Your task to perform on an android device: toggle notification dots Image 0: 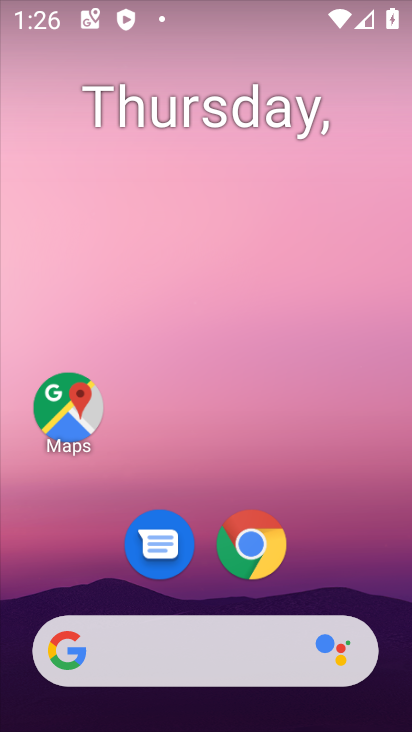
Step 0: drag from (211, 695) to (190, 66)
Your task to perform on an android device: toggle notification dots Image 1: 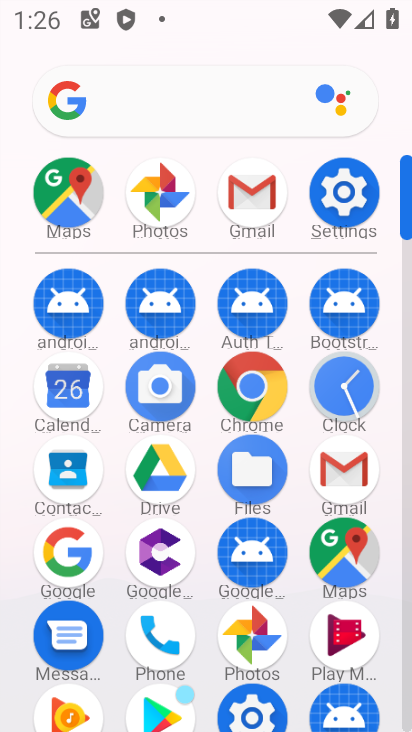
Step 1: click (331, 168)
Your task to perform on an android device: toggle notification dots Image 2: 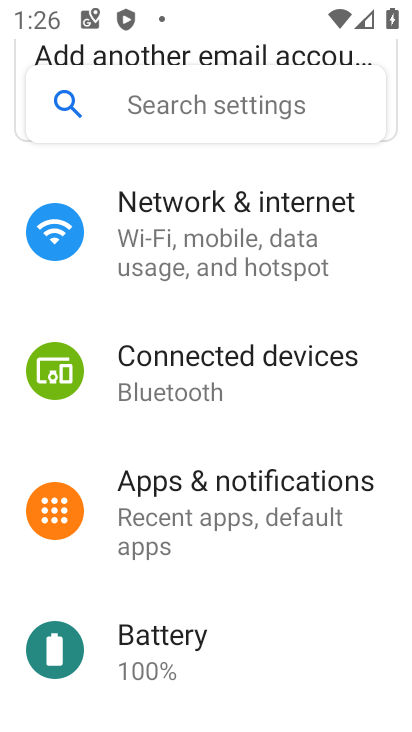
Step 2: click (232, 488)
Your task to perform on an android device: toggle notification dots Image 3: 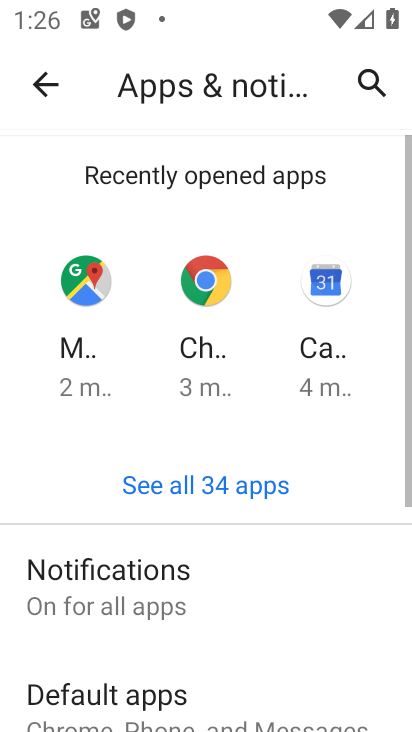
Step 3: click (125, 582)
Your task to perform on an android device: toggle notification dots Image 4: 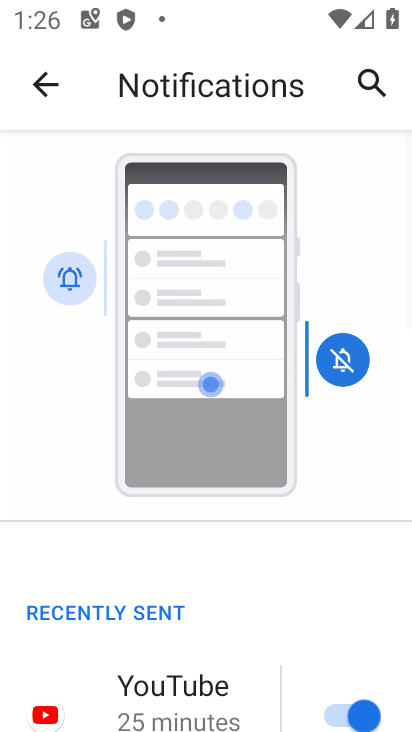
Step 4: drag from (272, 635) to (274, 181)
Your task to perform on an android device: toggle notification dots Image 5: 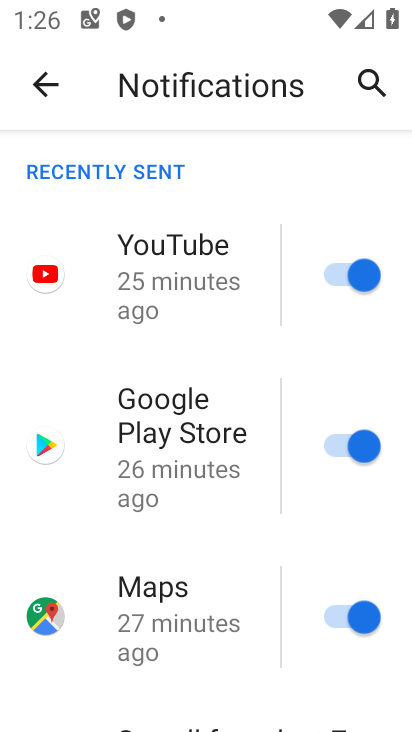
Step 5: drag from (198, 695) to (207, 268)
Your task to perform on an android device: toggle notification dots Image 6: 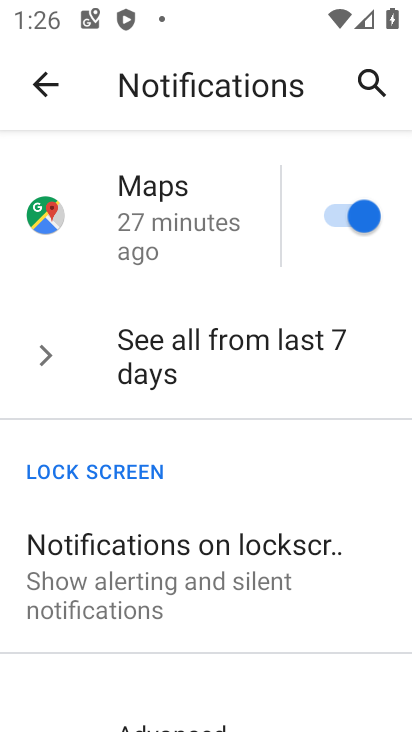
Step 6: drag from (173, 526) to (174, 295)
Your task to perform on an android device: toggle notification dots Image 7: 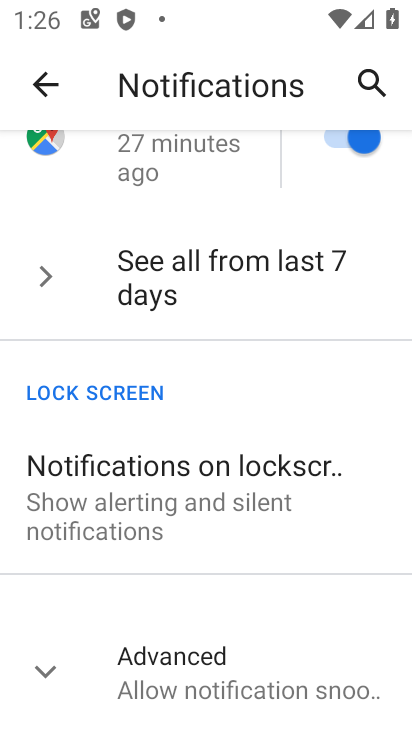
Step 7: click (213, 672)
Your task to perform on an android device: toggle notification dots Image 8: 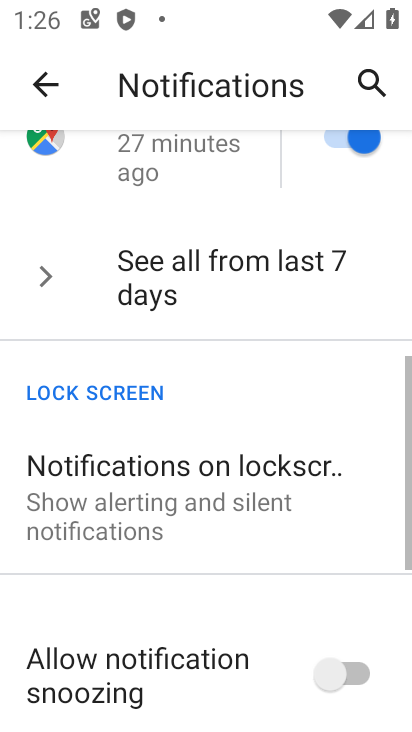
Step 8: drag from (256, 697) to (268, 301)
Your task to perform on an android device: toggle notification dots Image 9: 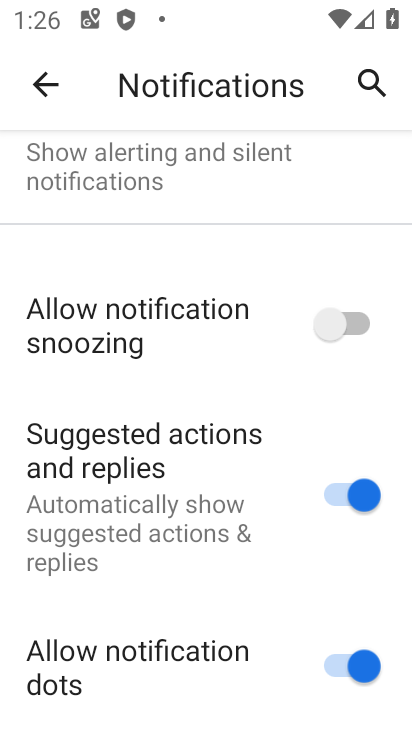
Step 9: click (344, 666)
Your task to perform on an android device: toggle notification dots Image 10: 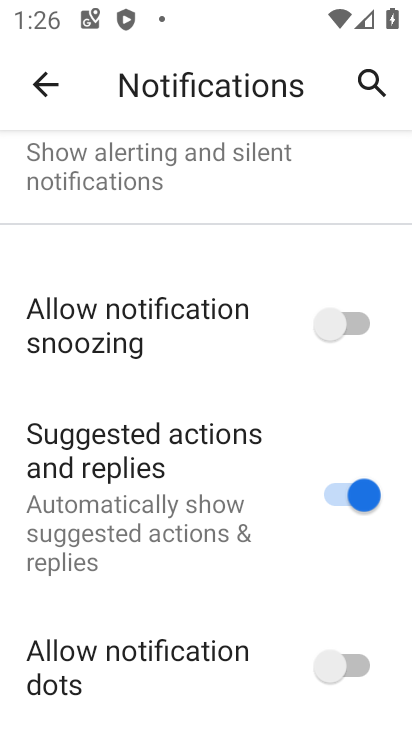
Step 10: task complete